Your task to perform on an android device: empty trash in google photos Image 0: 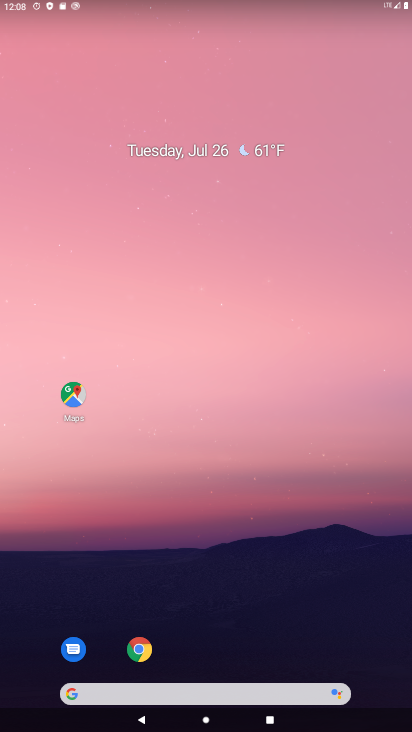
Step 0: drag from (193, 658) to (131, 470)
Your task to perform on an android device: empty trash in google photos Image 1: 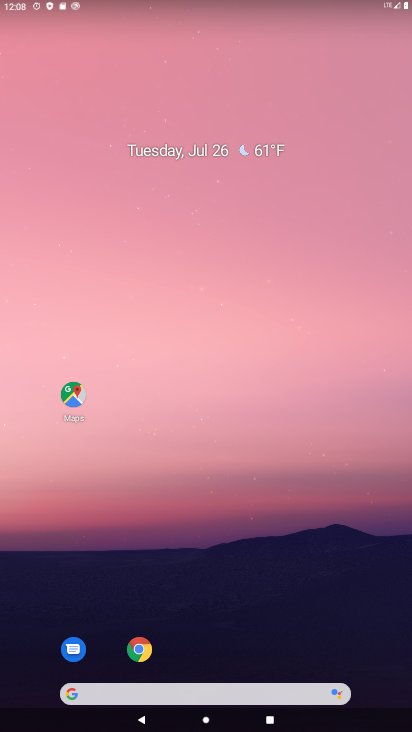
Step 1: drag from (241, 658) to (270, 2)
Your task to perform on an android device: empty trash in google photos Image 2: 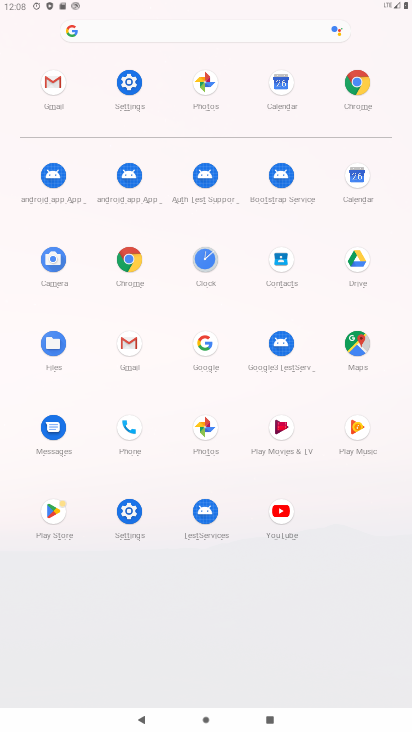
Step 2: click (214, 426)
Your task to perform on an android device: empty trash in google photos Image 3: 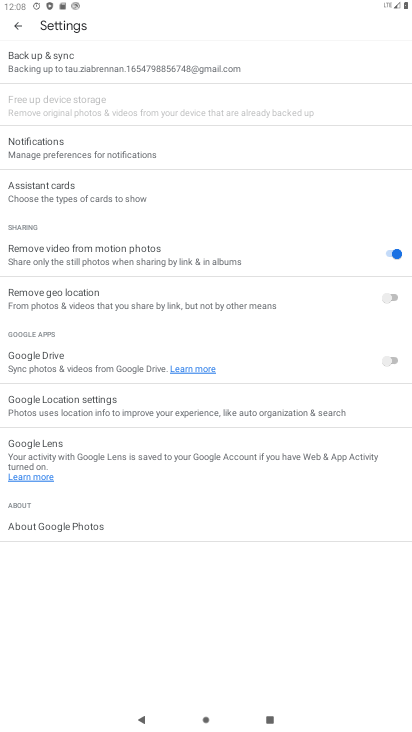
Step 3: click (14, 40)
Your task to perform on an android device: empty trash in google photos Image 4: 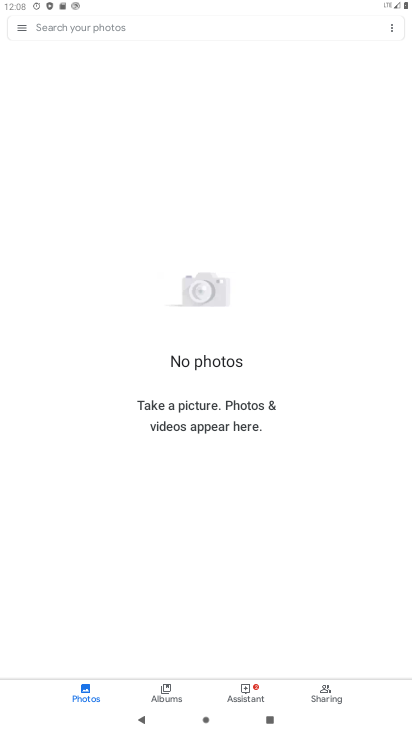
Step 4: click (15, 32)
Your task to perform on an android device: empty trash in google photos Image 5: 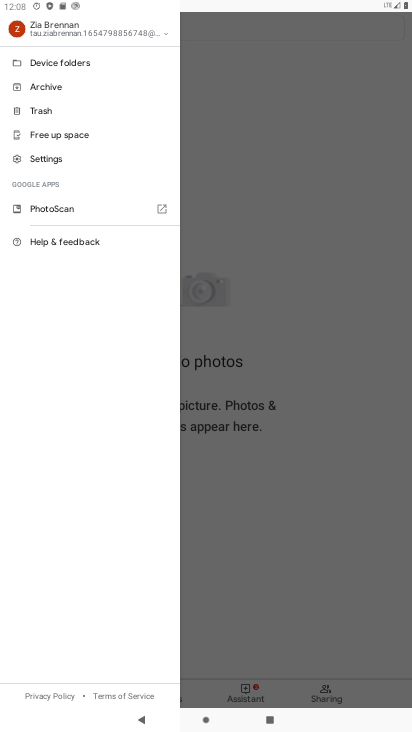
Step 5: click (41, 118)
Your task to perform on an android device: empty trash in google photos Image 6: 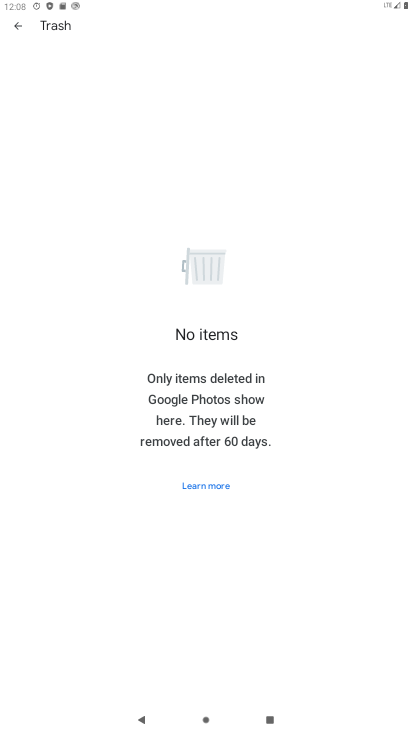
Step 6: task complete